Your task to perform on an android device: turn on notifications settings in the gmail app Image 0: 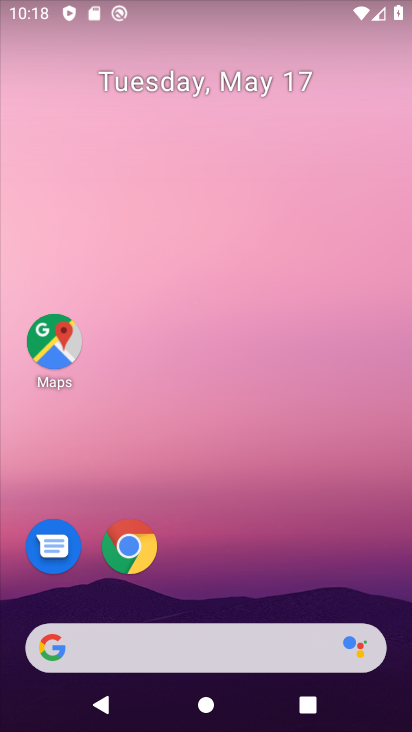
Step 0: drag from (322, 567) to (197, 0)
Your task to perform on an android device: turn on notifications settings in the gmail app Image 1: 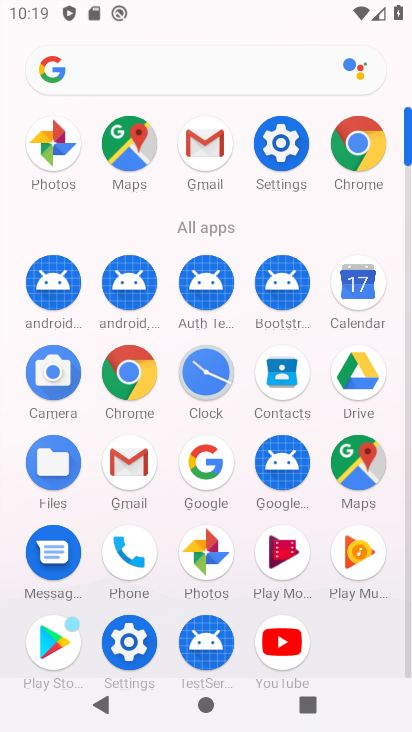
Step 1: click (207, 163)
Your task to perform on an android device: turn on notifications settings in the gmail app Image 2: 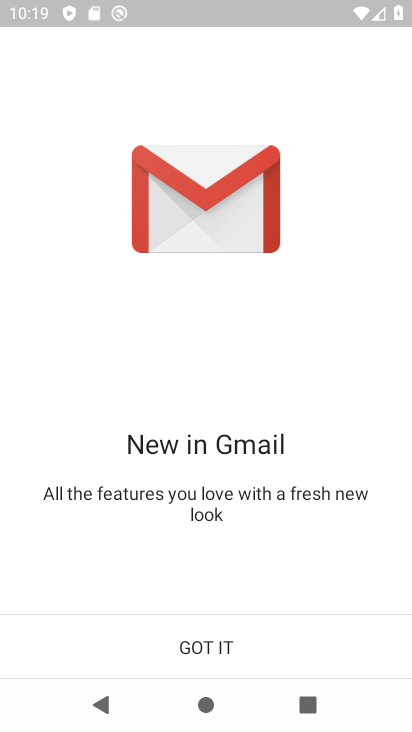
Step 2: click (210, 636)
Your task to perform on an android device: turn on notifications settings in the gmail app Image 3: 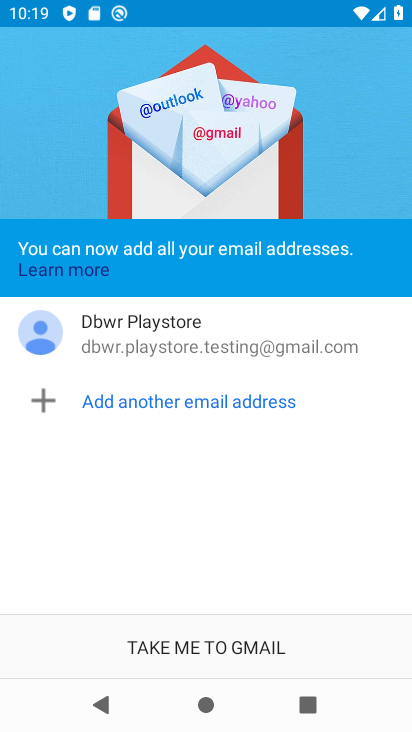
Step 3: click (210, 636)
Your task to perform on an android device: turn on notifications settings in the gmail app Image 4: 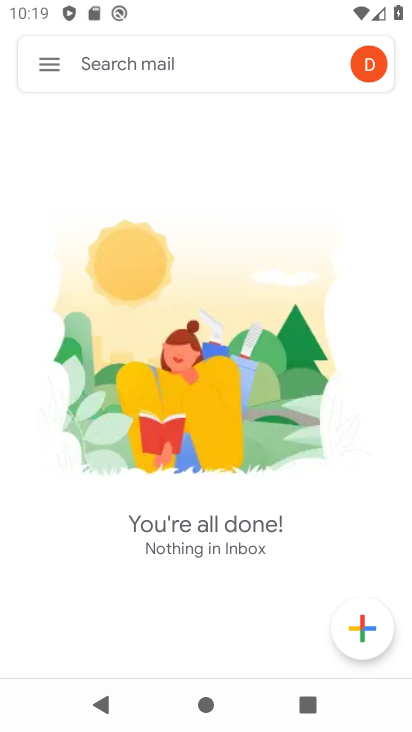
Step 4: click (45, 66)
Your task to perform on an android device: turn on notifications settings in the gmail app Image 5: 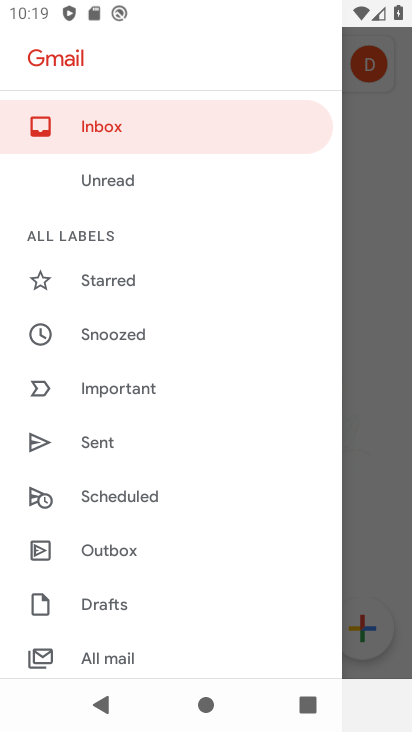
Step 5: drag from (213, 568) to (210, 23)
Your task to perform on an android device: turn on notifications settings in the gmail app Image 6: 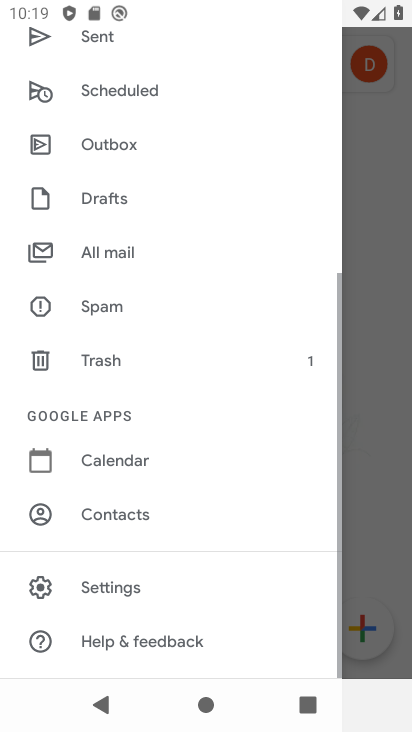
Step 6: click (130, 582)
Your task to perform on an android device: turn on notifications settings in the gmail app Image 7: 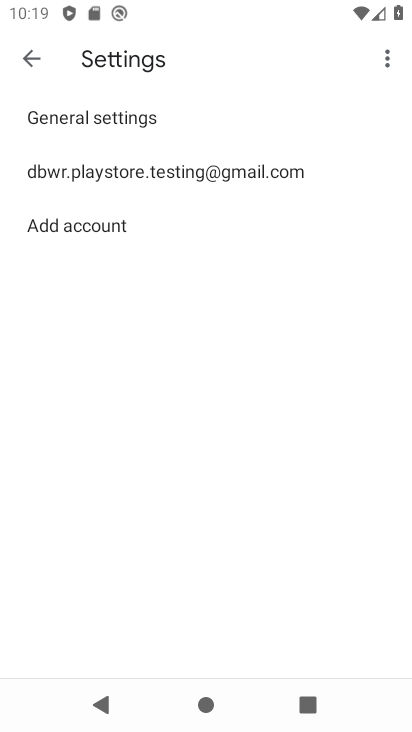
Step 7: click (50, 115)
Your task to perform on an android device: turn on notifications settings in the gmail app Image 8: 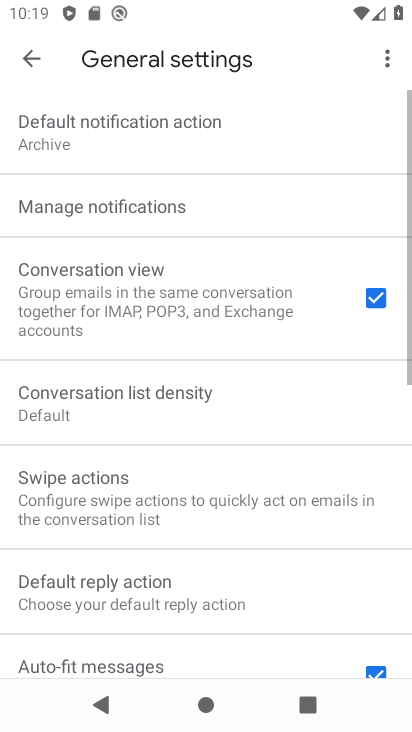
Step 8: click (151, 219)
Your task to perform on an android device: turn on notifications settings in the gmail app Image 9: 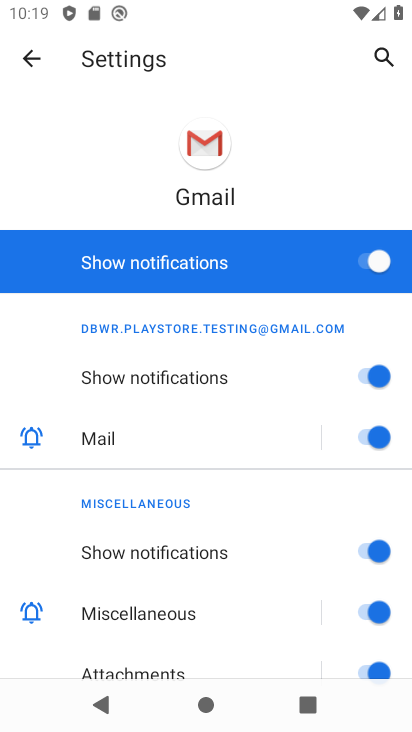
Step 9: task complete